Your task to perform on an android device: set default search engine in the chrome app Image 0: 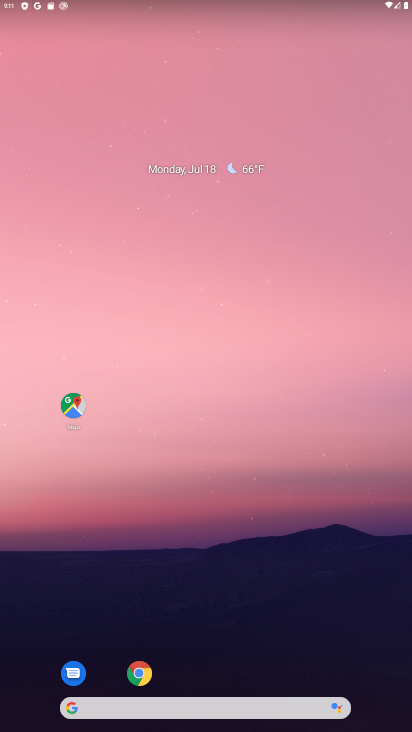
Step 0: click (142, 676)
Your task to perform on an android device: set default search engine in the chrome app Image 1: 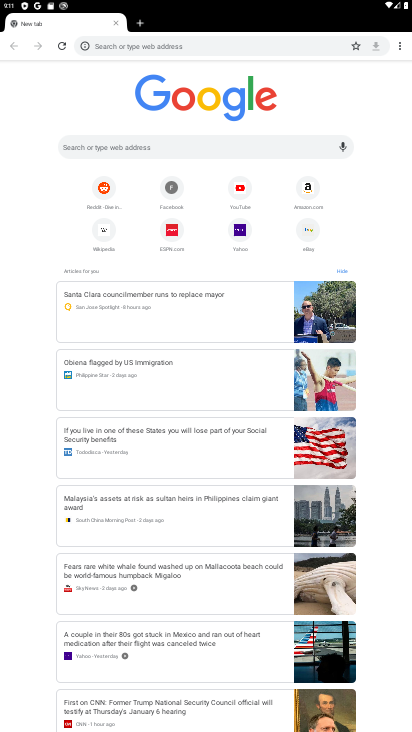
Step 1: click (394, 48)
Your task to perform on an android device: set default search engine in the chrome app Image 2: 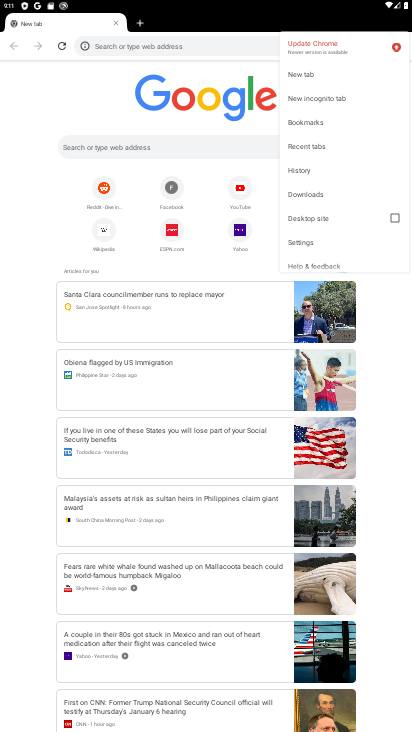
Step 2: click (310, 243)
Your task to perform on an android device: set default search engine in the chrome app Image 3: 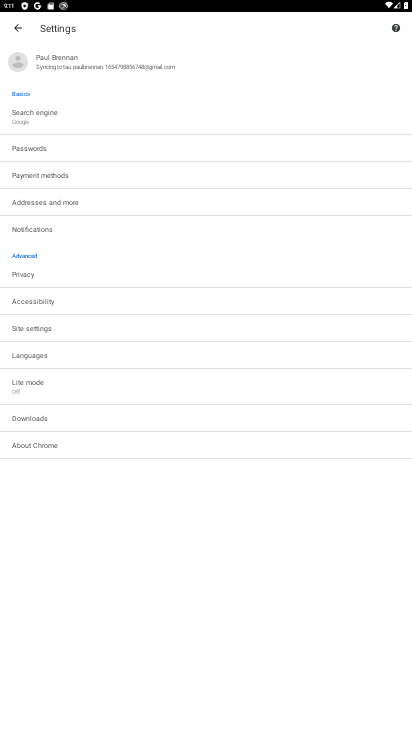
Step 3: click (49, 115)
Your task to perform on an android device: set default search engine in the chrome app Image 4: 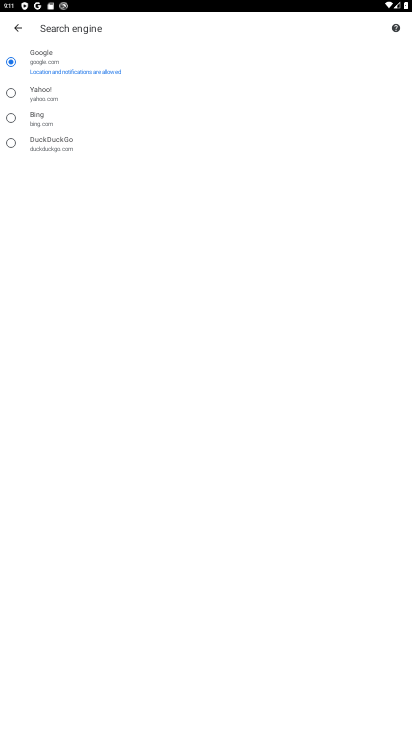
Step 4: task complete